Your task to perform on an android device: Set the phone to "Do not disturb". Image 0: 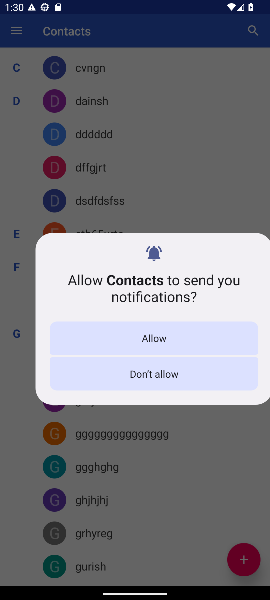
Step 0: press back button
Your task to perform on an android device: Set the phone to "Do not disturb". Image 1: 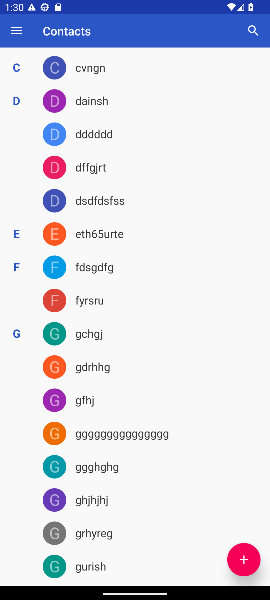
Step 1: press home button
Your task to perform on an android device: Set the phone to "Do not disturb". Image 2: 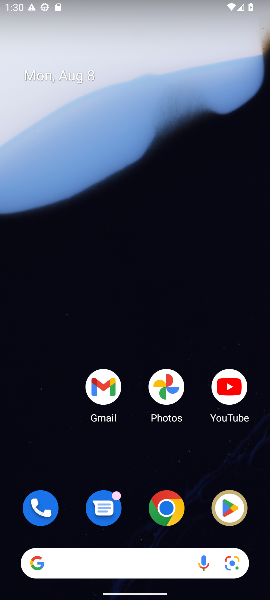
Step 2: drag from (139, 475) to (134, 154)
Your task to perform on an android device: Set the phone to "Do not disturb". Image 3: 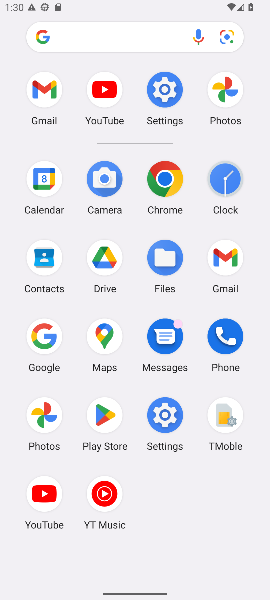
Step 3: click (159, 93)
Your task to perform on an android device: Set the phone to "Do not disturb". Image 4: 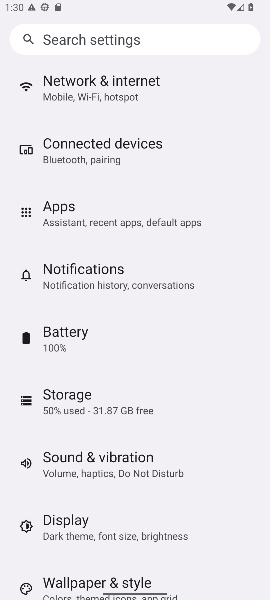
Step 4: click (81, 458)
Your task to perform on an android device: Set the phone to "Do not disturb". Image 5: 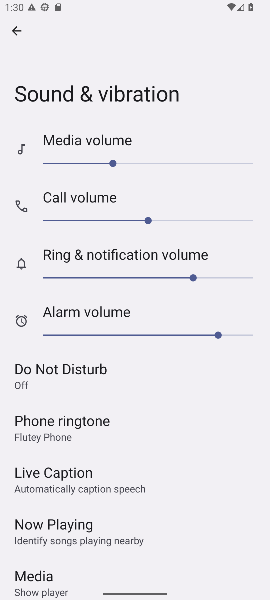
Step 5: click (71, 381)
Your task to perform on an android device: Set the phone to "Do not disturb". Image 6: 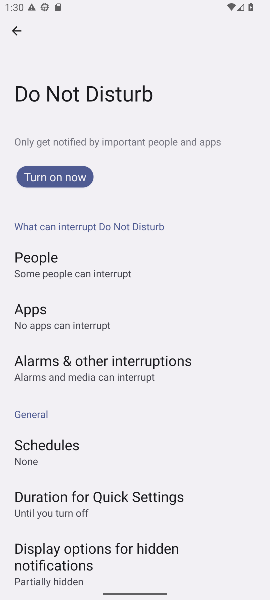
Step 6: click (44, 183)
Your task to perform on an android device: Set the phone to "Do not disturb". Image 7: 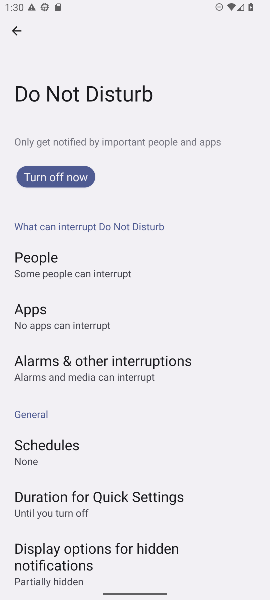
Step 7: task complete